Your task to perform on an android device: turn vacation reply on in the gmail app Image 0: 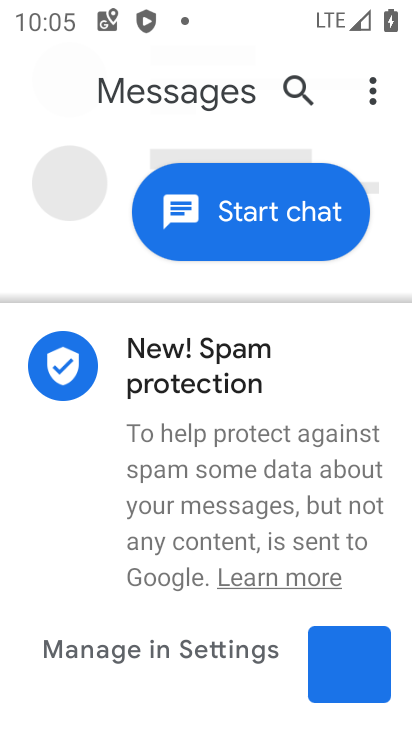
Step 0: press home button
Your task to perform on an android device: turn vacation reply on in the gmail app Image 1: 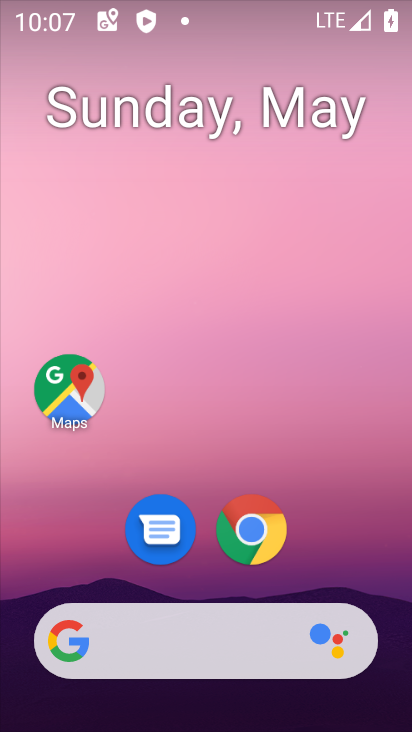
Step 1: drag from (306, 540) to (286, 4)
Your task to perform on an android device: turn vacation reply on in the gmail app Image 2: 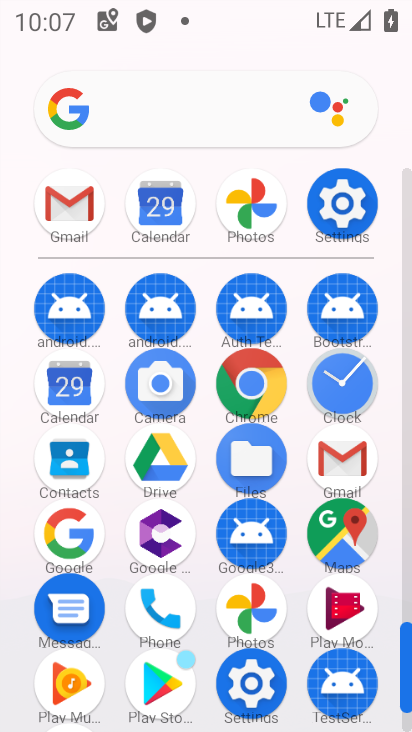
Step 2: click (59, 247)
Your task to perform on an android device: turn vacation reply on in the gmail app Image 3: 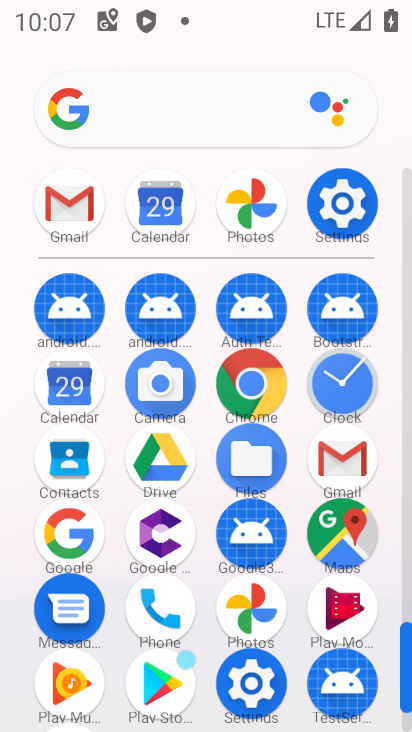
Step 3: task complete